Your task to perform on an android device: Open CNN.com Image 0: 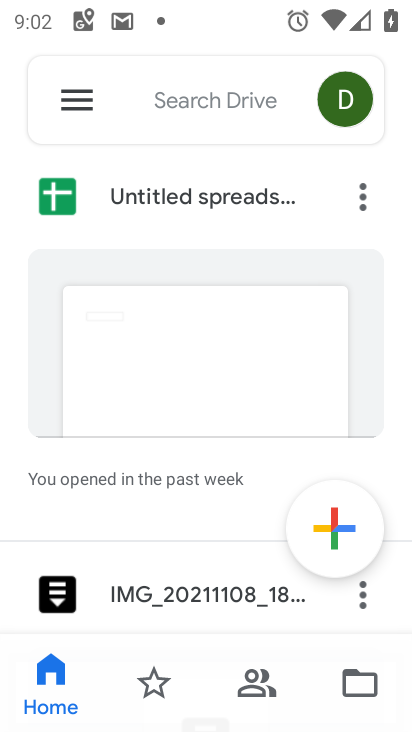
Step 0: press home button
Your task to perform on an android device: Open CNN.com Image 1: 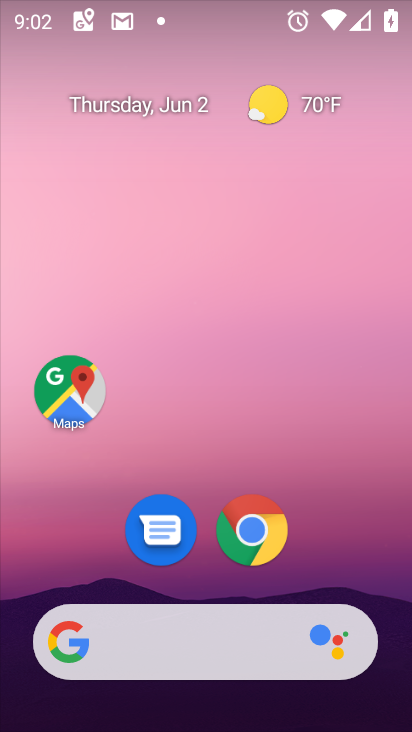
Step 1: drag from (208, 648) to (208, 310)
Your task to perform on an android device: Open CNN.com Image 2: 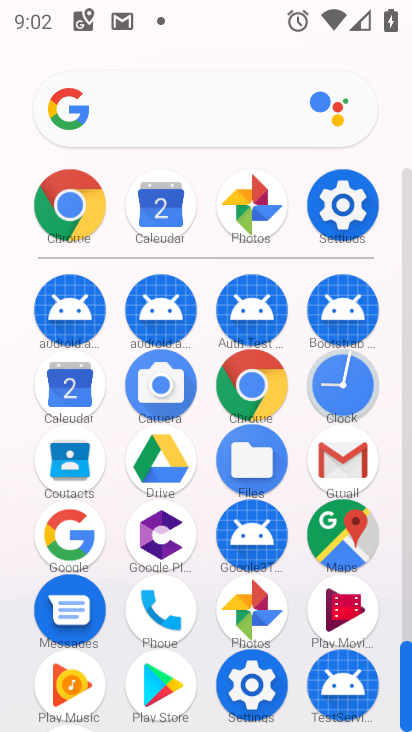
Step 2: click (74, 543)
Your task to perform on an android device: Open CNN.com Image 3: 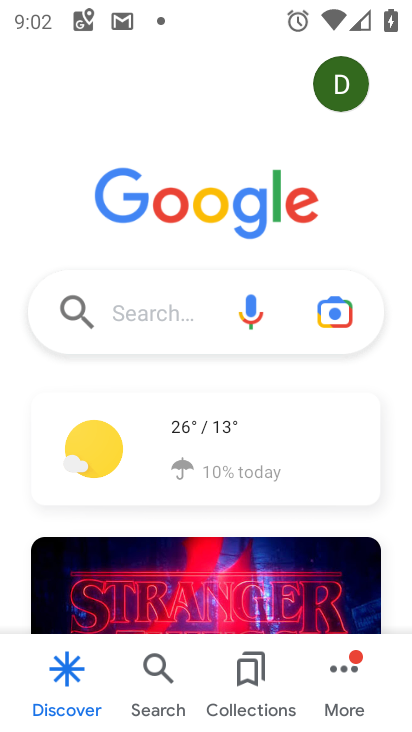
Step 3: click (162, 317)
Your task to perform on an android device: Open CNN.com Image 4: 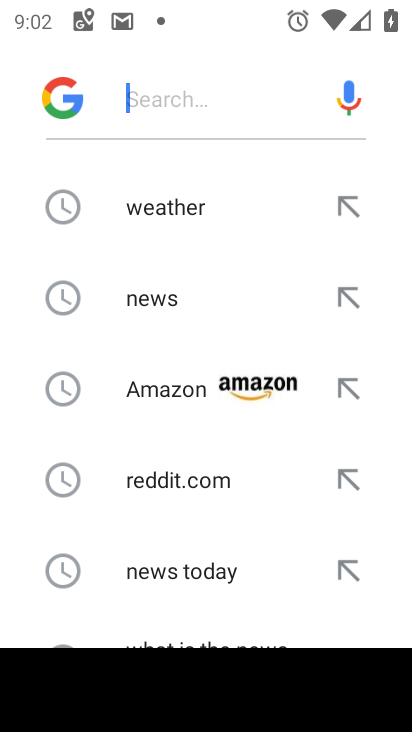
Step 4: drag from (95, 596) to (157, 204)
Your task to perform on an android device: Open CNN.com Image 5: 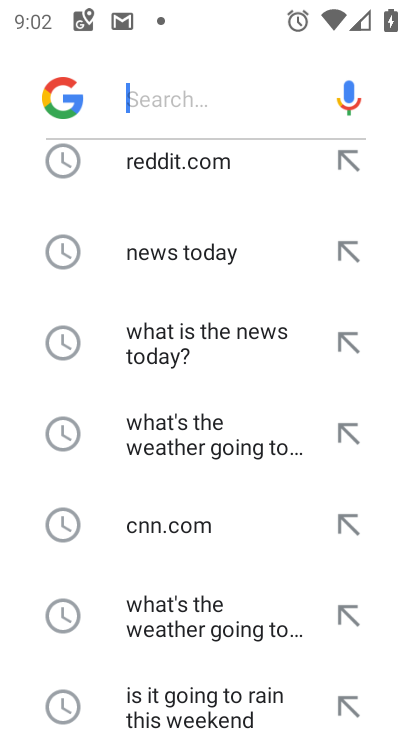
Step 5: click (176, 521)
Your task to perform on an android device: Open CNN.com Image 6: 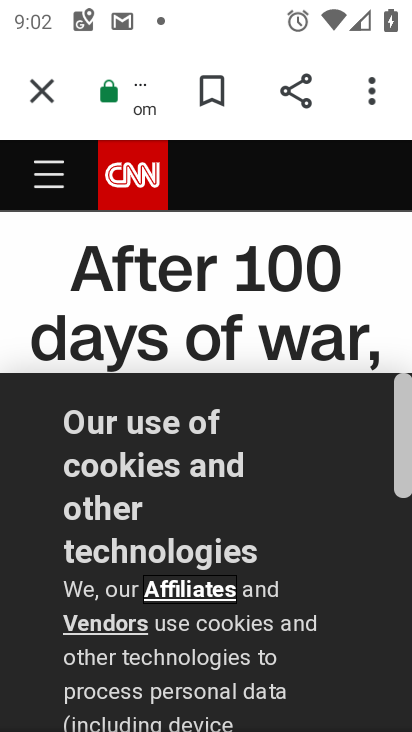
Step 6: task complete